Your task to perform on an android device: open device folders in google photos Image 0: 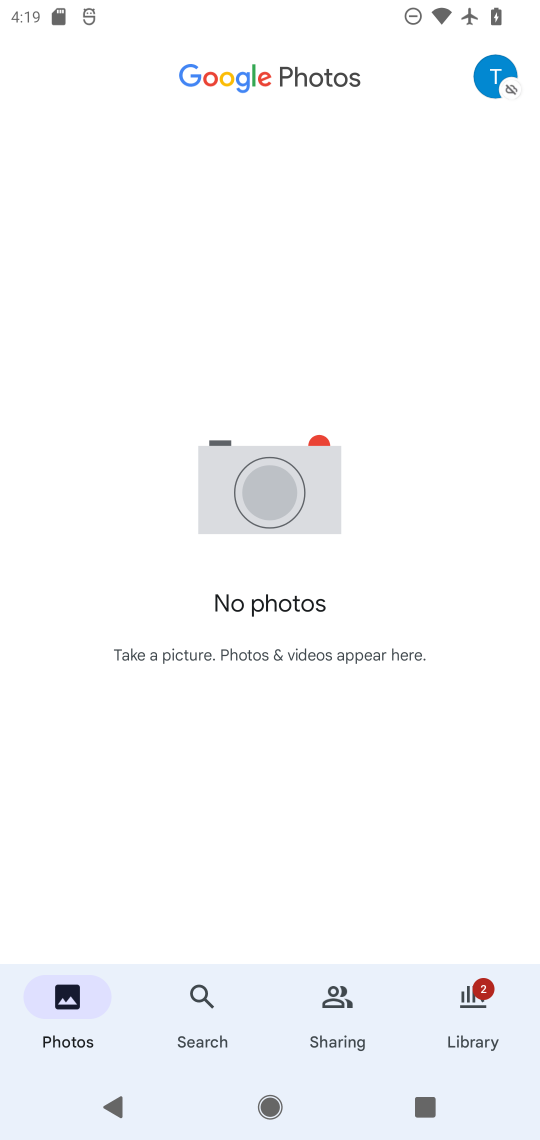
Step 0: press home button
Your task to perform on an android device: open device folders in google photos Image 1: 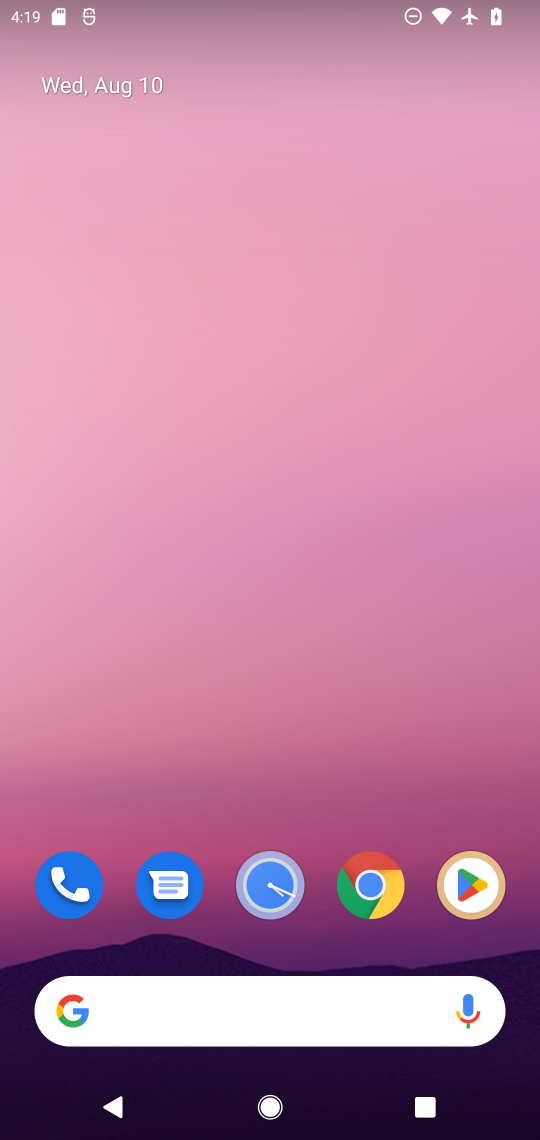
Step 1: drag from (308, 948) to (252, 277)
Your task to perform on an android device: open device folders in google photos Image 2: 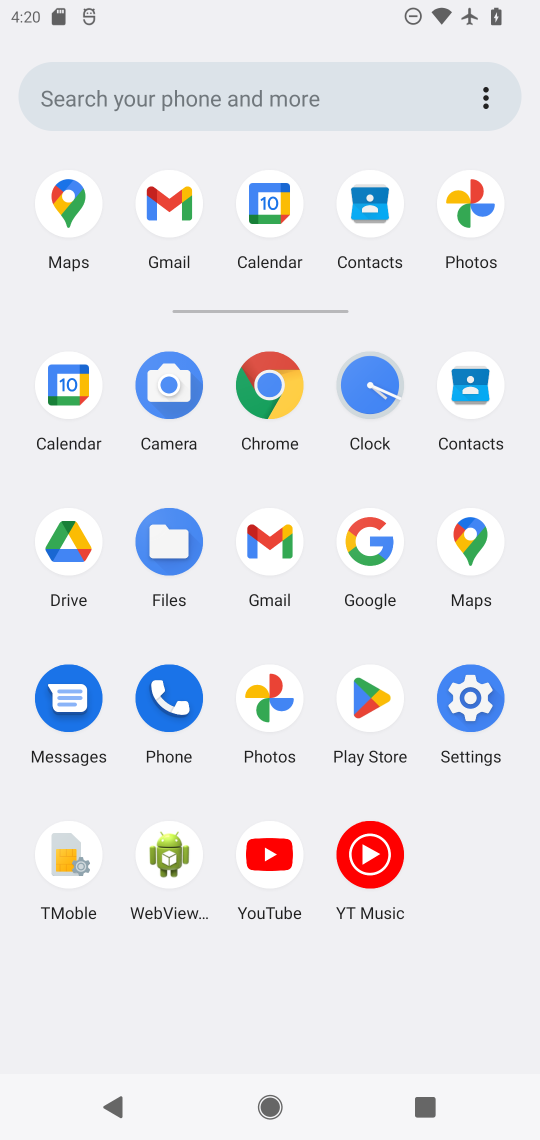
Step 2: click (473, 205)
Your task to perform on an android device: open device folders in google photos Image 3: 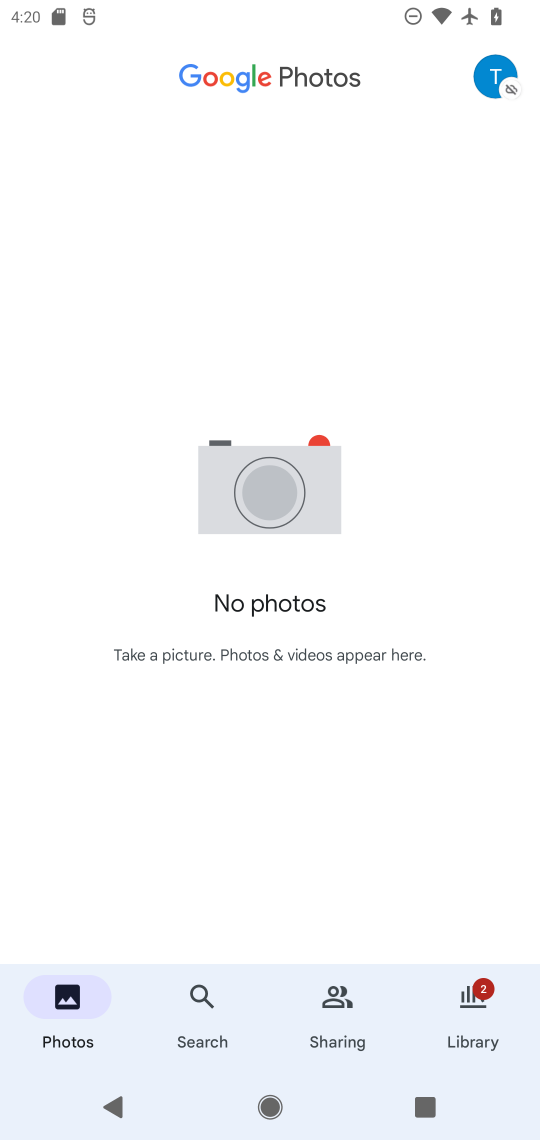
Step 3: click (192, 978)
Your task to perform on an android device: open device folders in google photos Image 4: 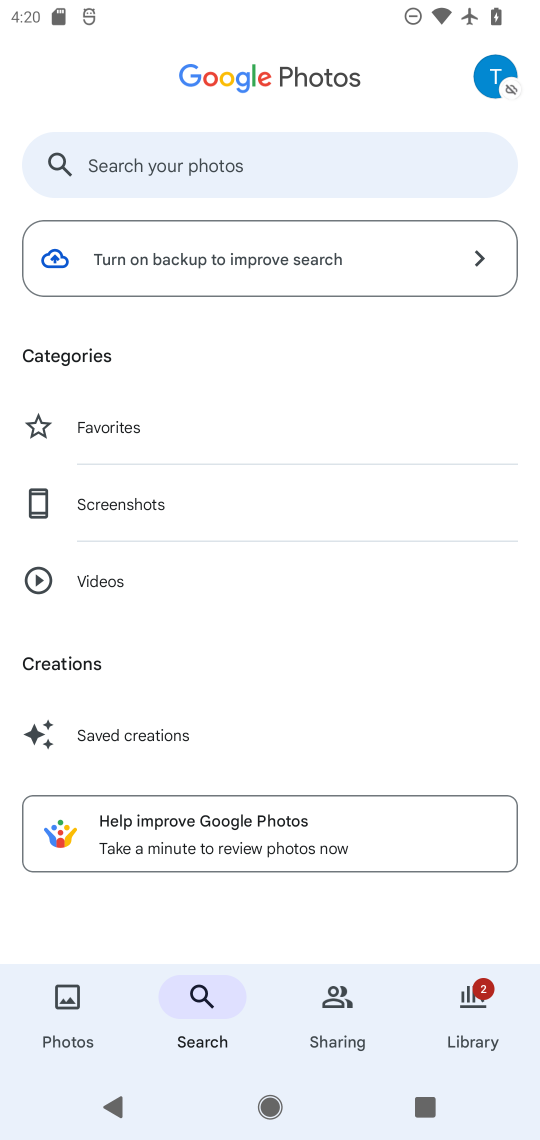
Step 4: click (233, 168)
Your task to perform on an android device: open device folders in google photos Image 5: 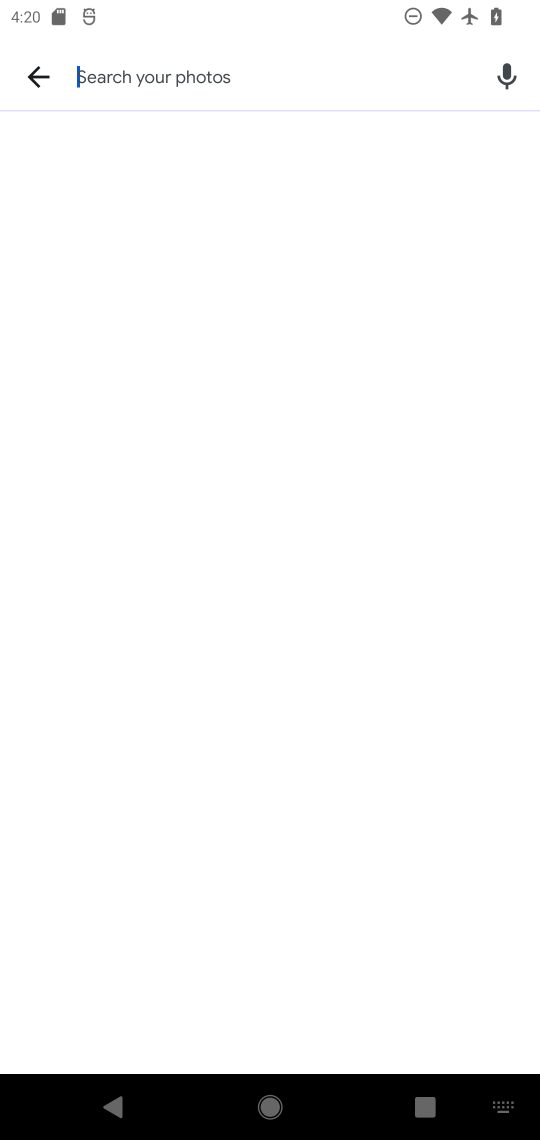
Step 5: type "device folders"
Your task to perform on an android device: open device folders in google photos Image 6: 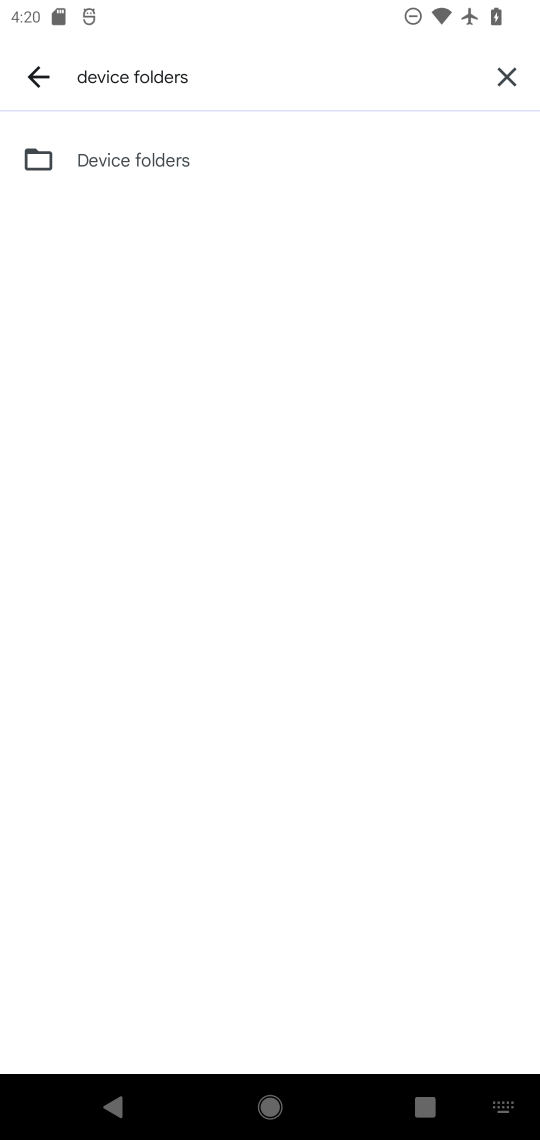
Step 6: click (147, 152)
Your task to perform on an android device: open device folders in google photos Image 7: 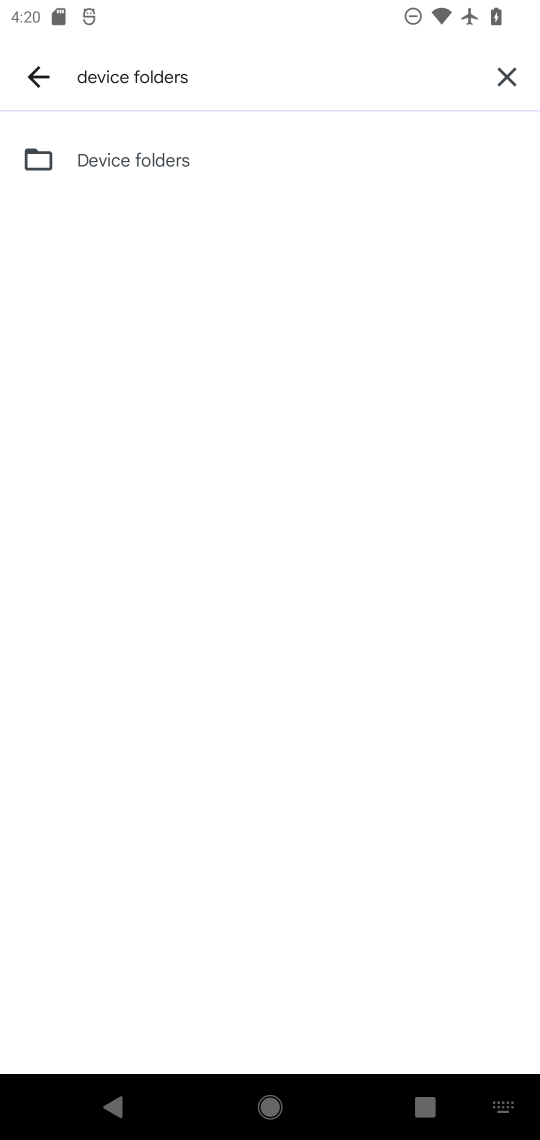
Step 7: click (100, 161)
Your task to perform on an android device: open device folders in google photos Image 8: 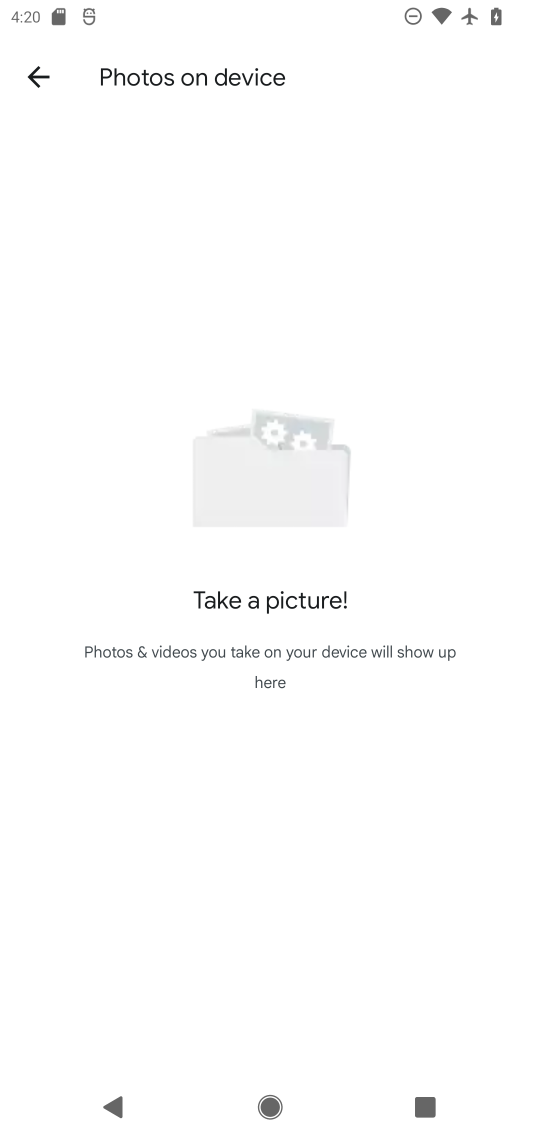
Step 8: task complete